Your task to perform on an android device: install app "Firefox Browser" Image 0: 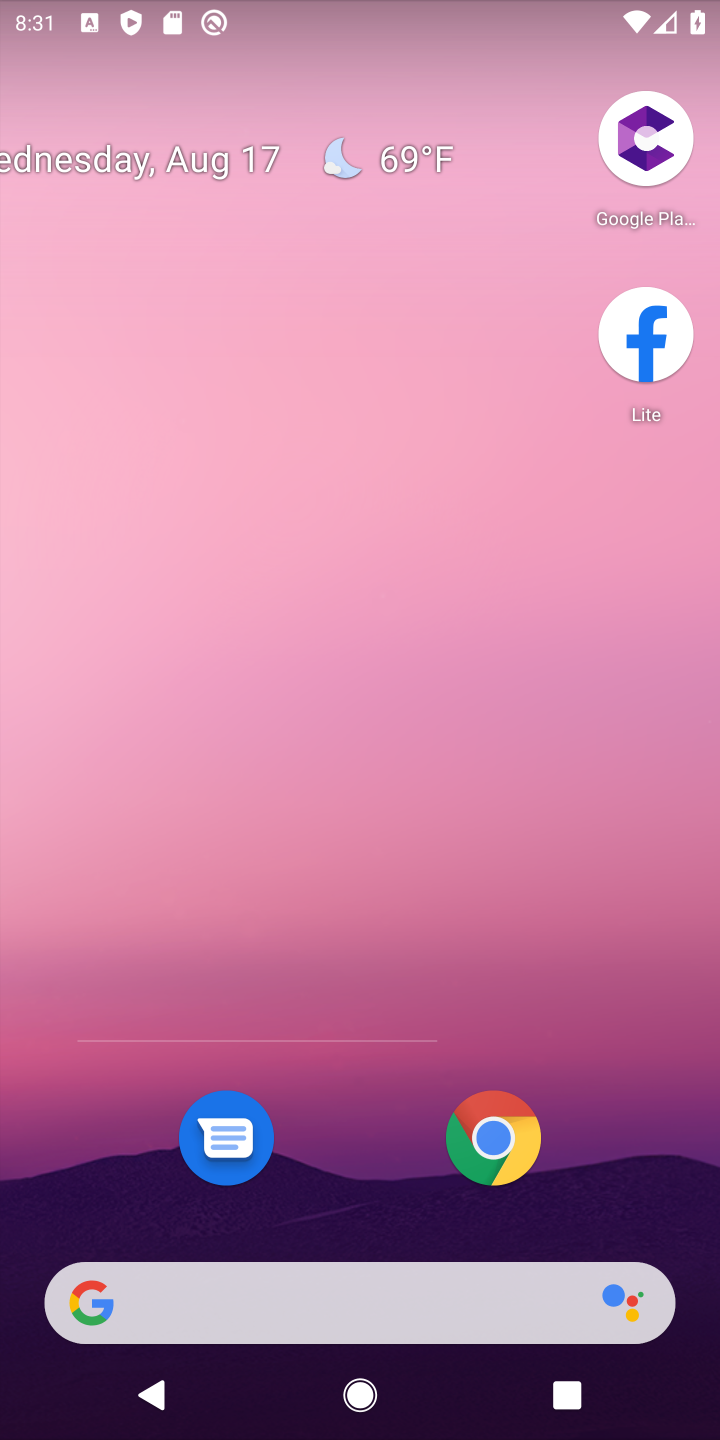
Step 0: press home button
Your task to perform on an android device: install app "Firefox Browser" Image 1: 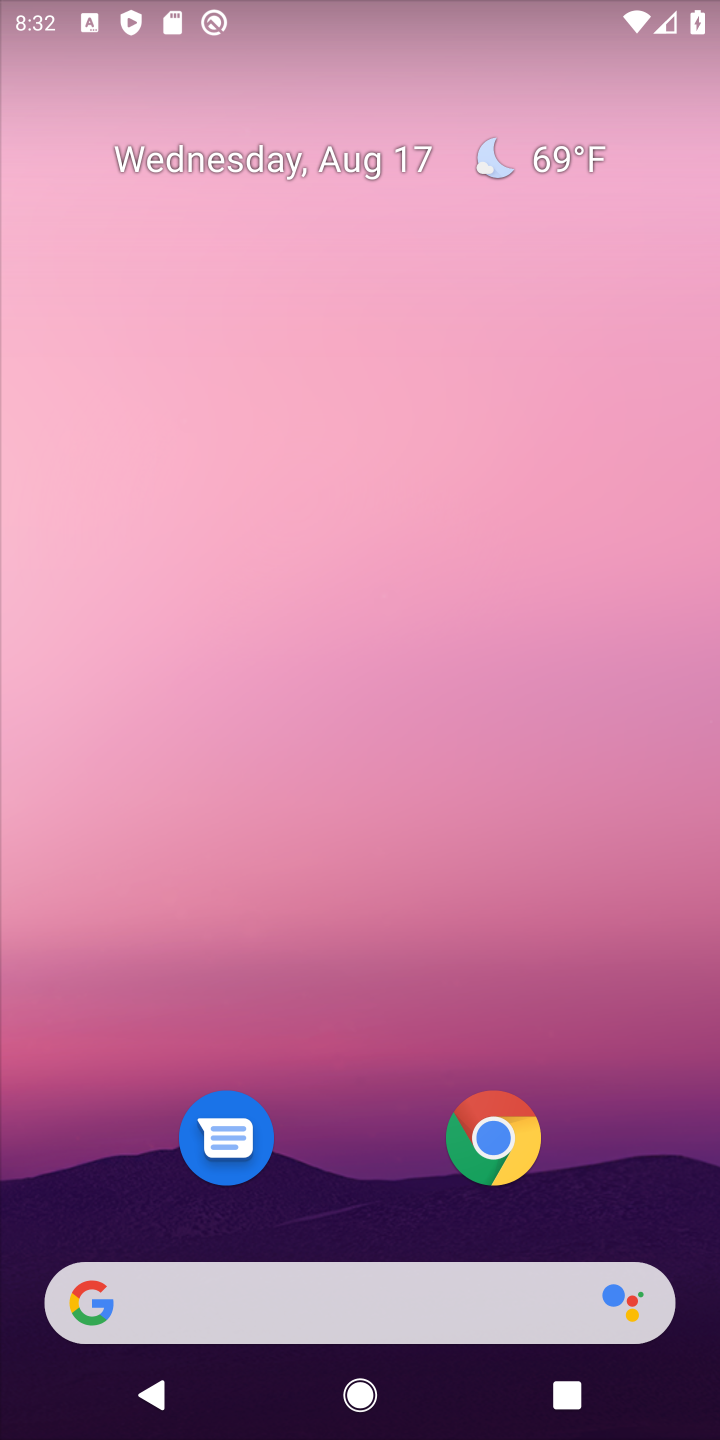
Step 1: drag from (341, 1087) to (380, 353)
Your task to perform on an android device: install app "Firefox Browser" Image 2: 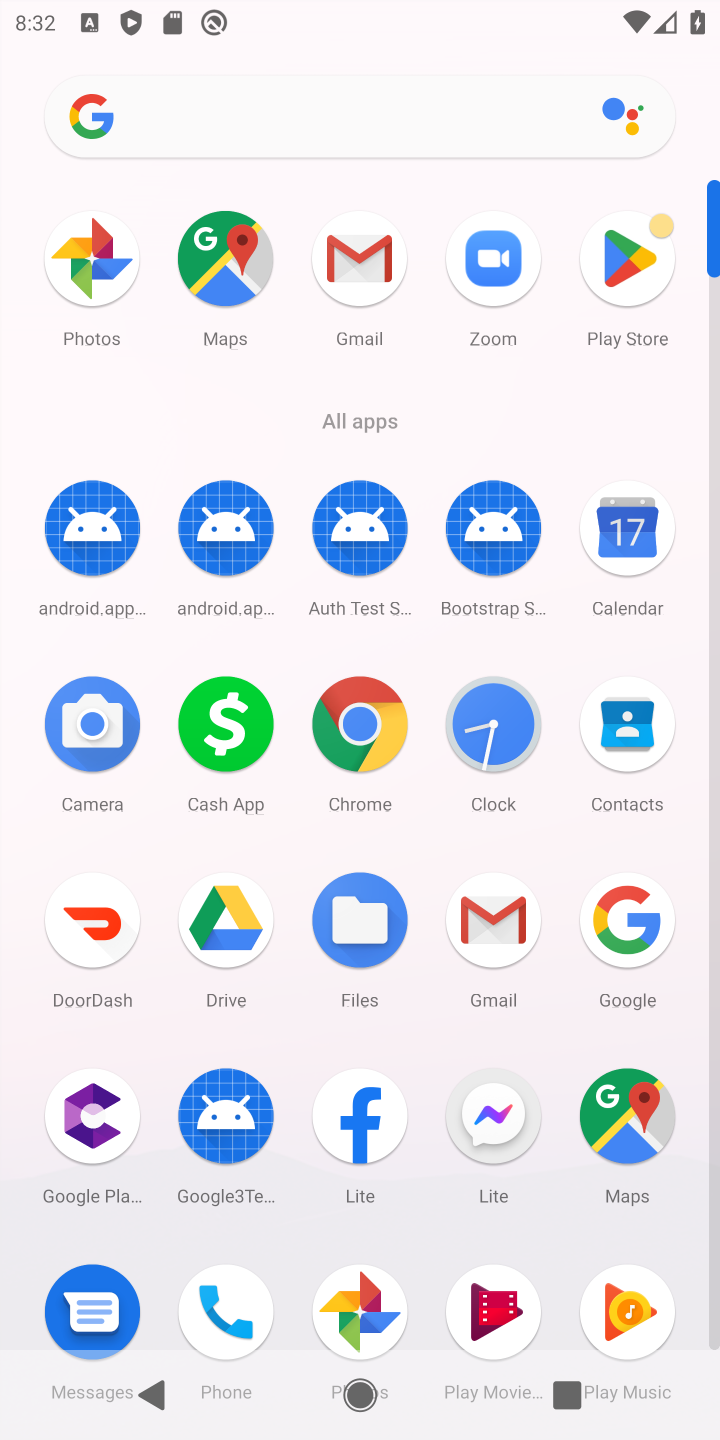
Step 2: click (630, 266)
Your task to perform on an android device: install app "Firefox Browser" Image 3: 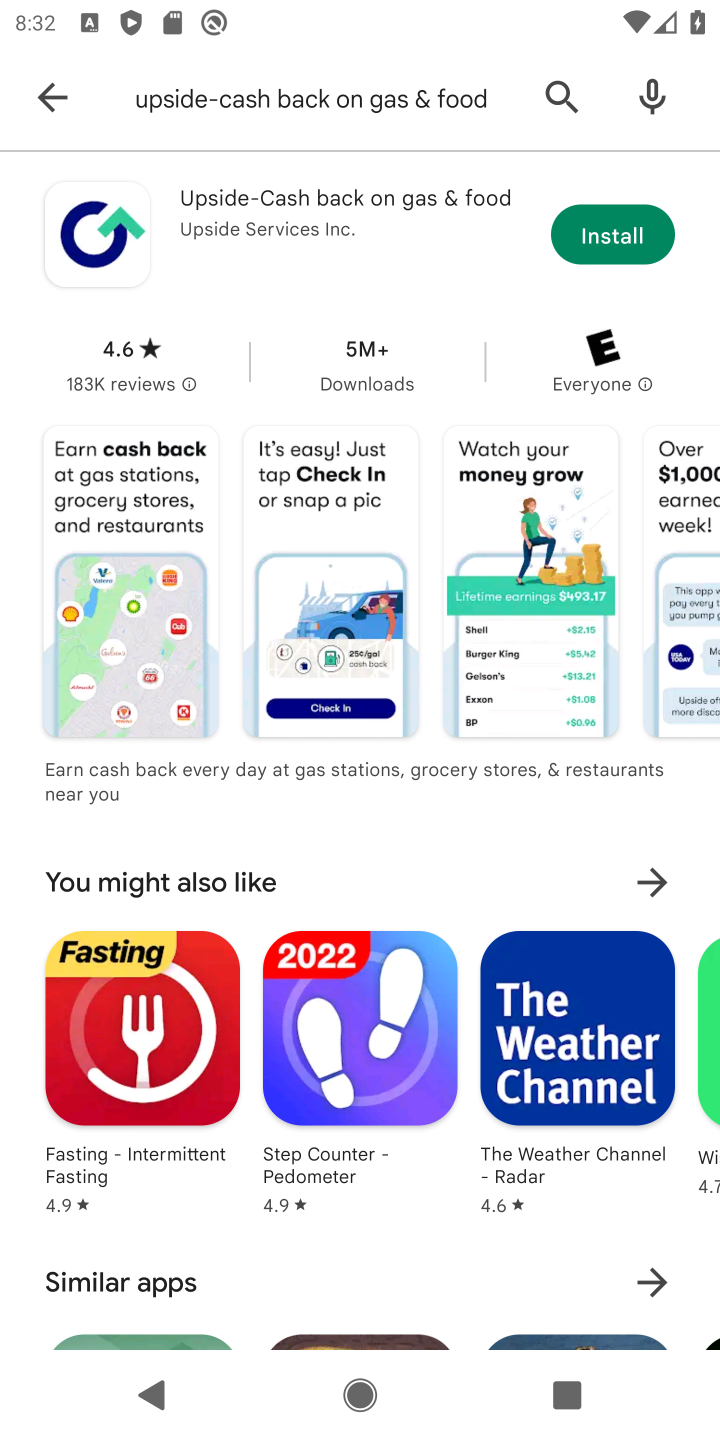
Step 3: click (58, 90)
Your task to perform on an android device: install app "Firefox Browser" Image 4: 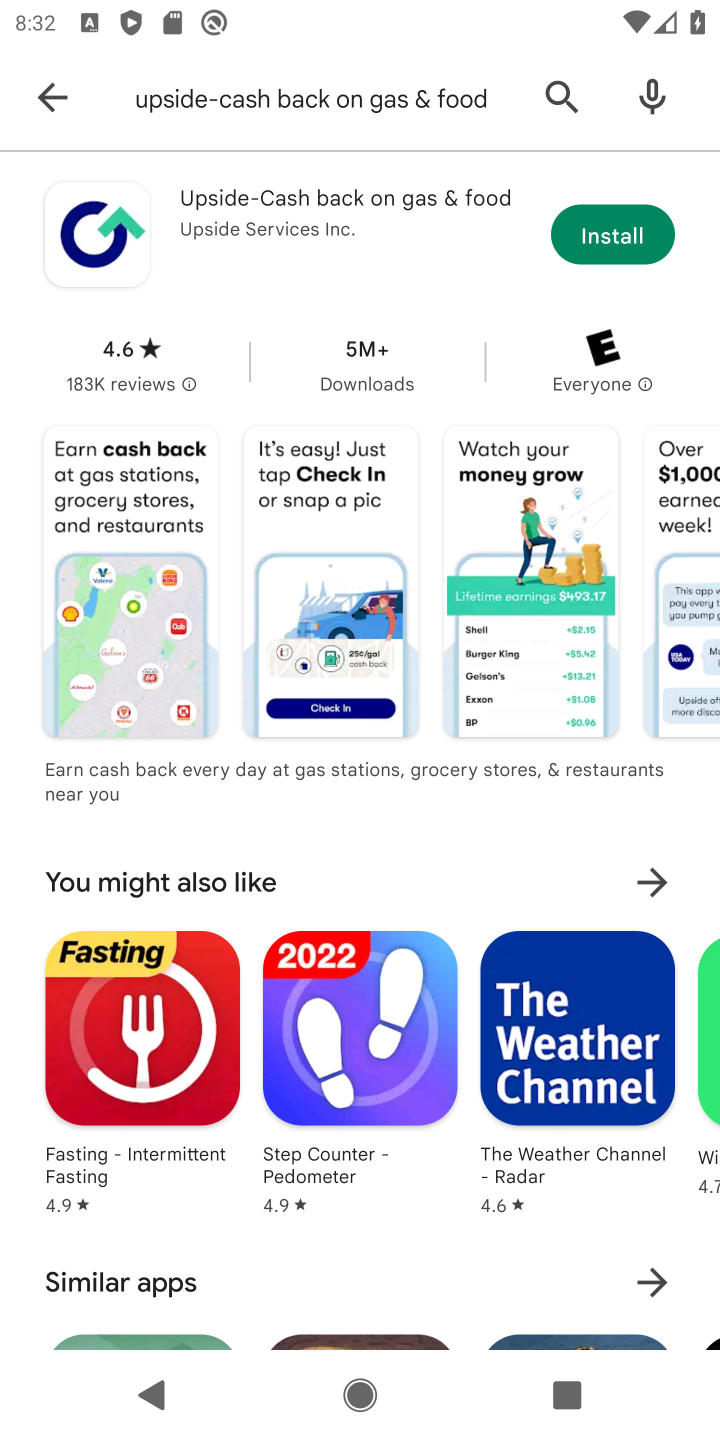
Step 4: click (75, 86)
Your task to perform on an android device: install app "Firefox Browser" Image 5: 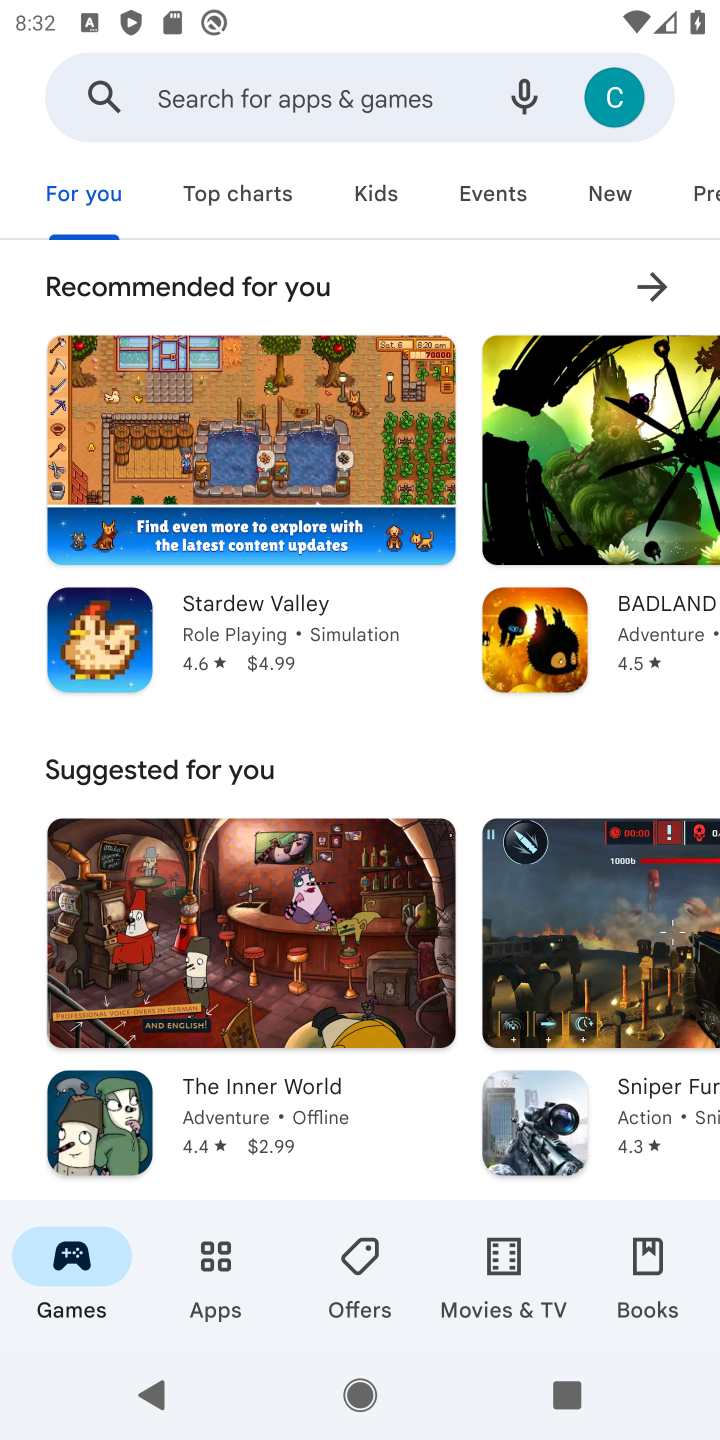
Step 5: click (360, 87)
Your task to perform on an android device: install app "Firefox Browser" Image 6: 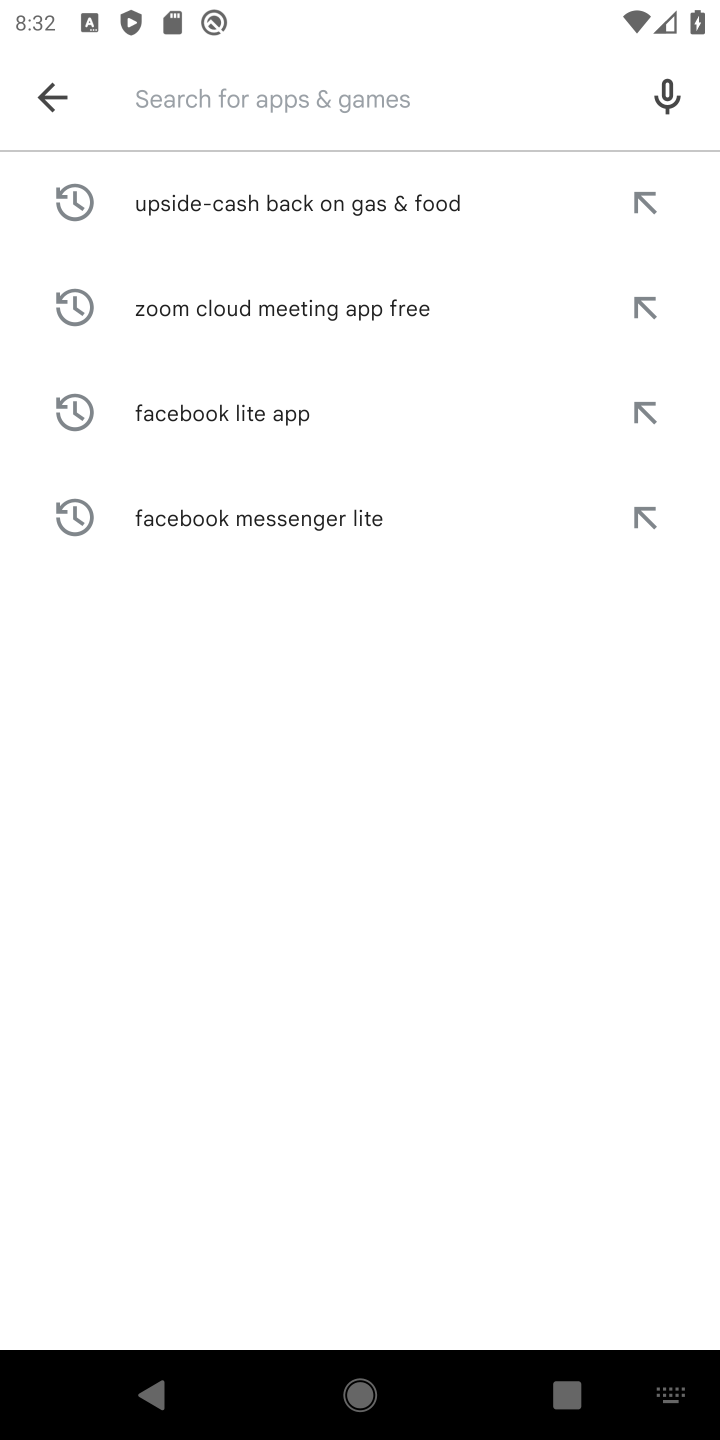
Step 6: type "Firefox Browser "
Your task to perform on an android device: install app "Firefox Browser" Image 7: 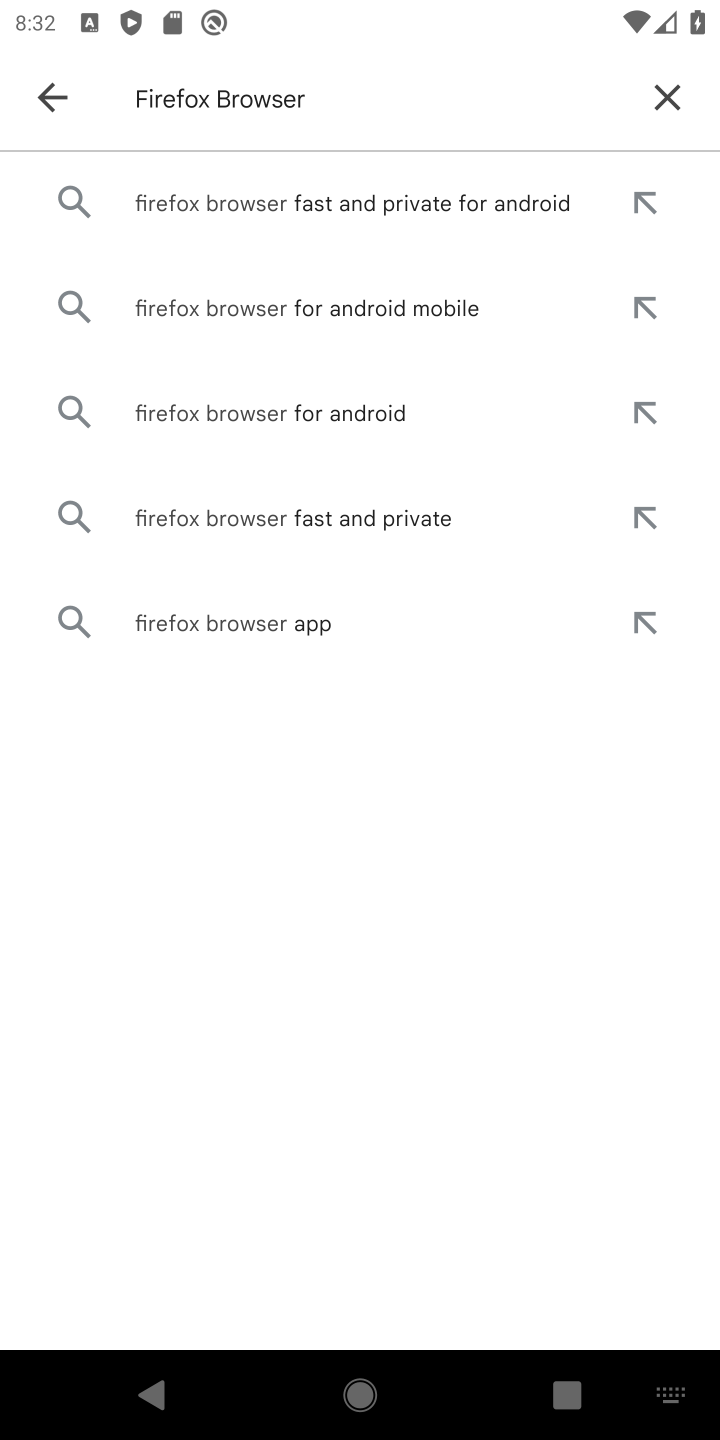
Step 7: click (311, 308)
Your task to perform on an android device: install app "Firefox Browser" Image 8: 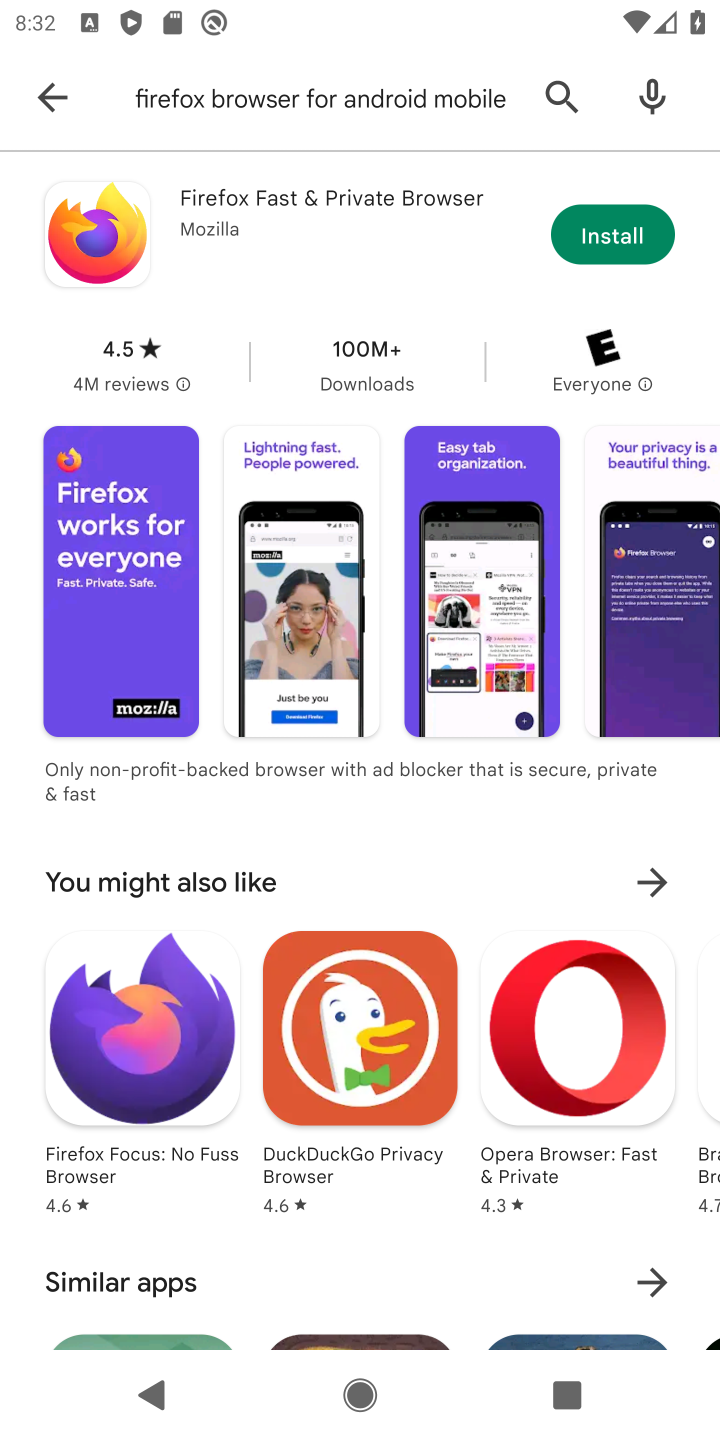
Step 8: click (652, 229)
Your task to perform on an android device: install app "Firefox Browser" Image 9: 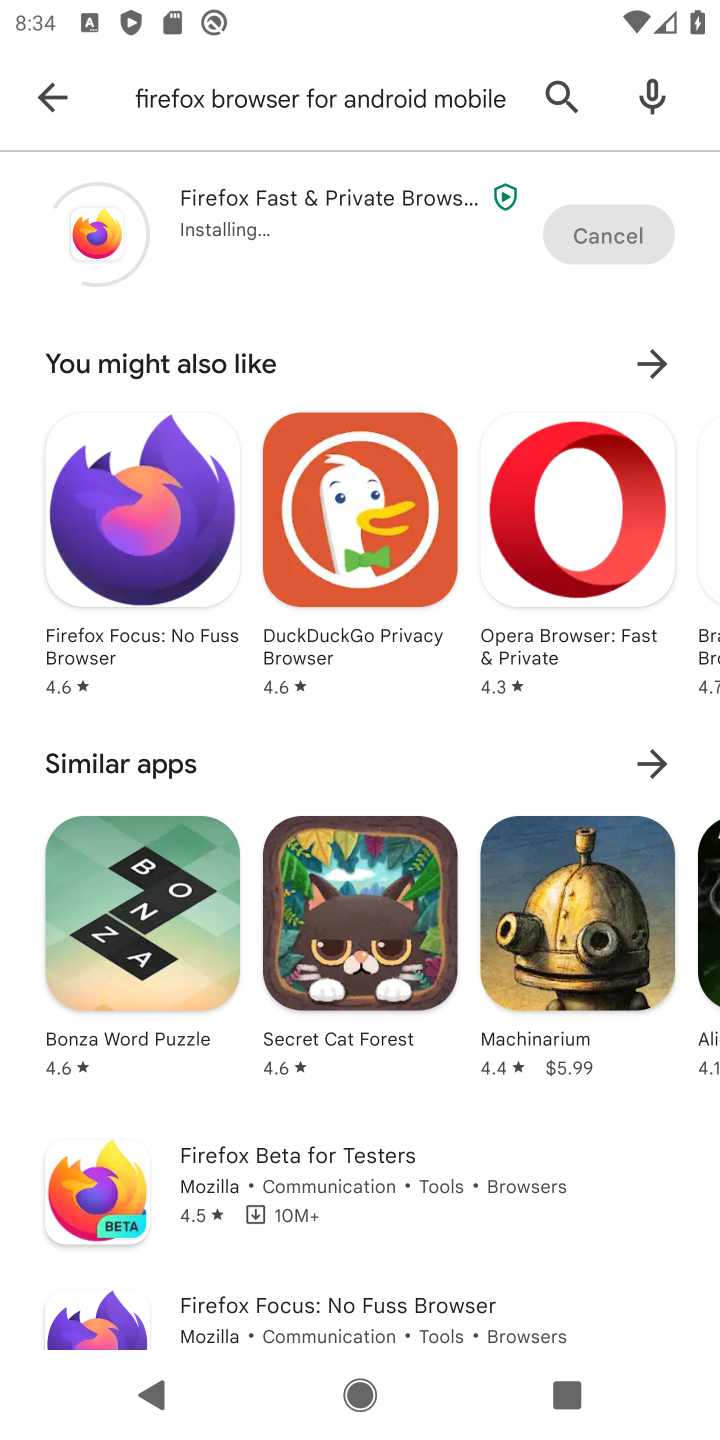
Step 9: task complete